Your task to perform on an android device: Show the shopping cart on ebay. Image 0: 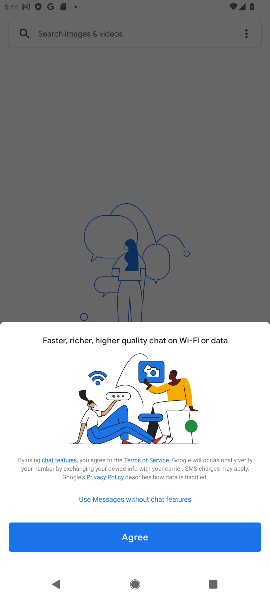
Step 0: press home button
Your task to perform on an android device: Show the shopping cart on ebay. Image 1: 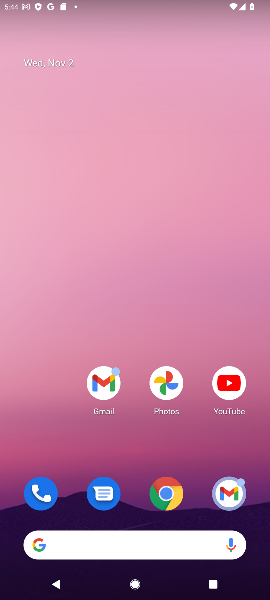
Step 1: drag from (91, 488) to (155, 68)
Your task to perform on an android device: Show the shopping cart on ebay. Image 2: 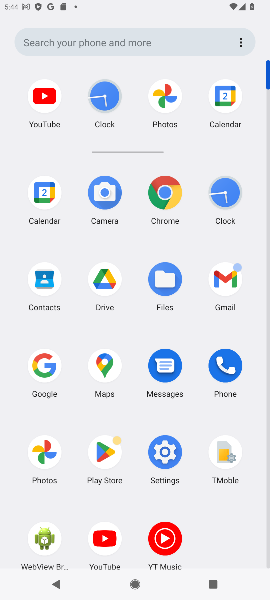
Step 2: click (42, 368)
Your task to perform on an android device: Show the shopping cart on ebay. Image 3: 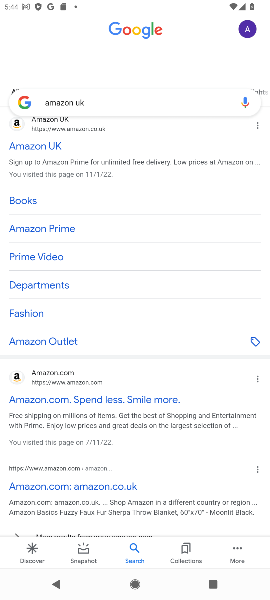
Step 3: click (119, 108)
Your task to perform on an android device: Show the shopping cart on ebay. Image 4: 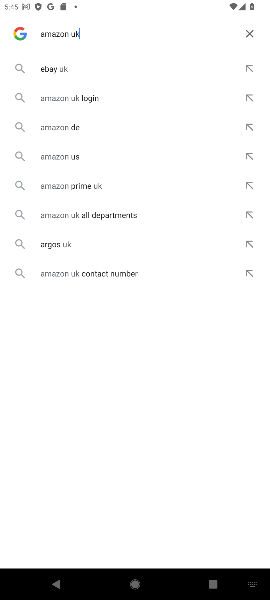
Step 4: click (245, 32)
Your task to perform on an android device: Show the shopping cart on ebay. Image 5: 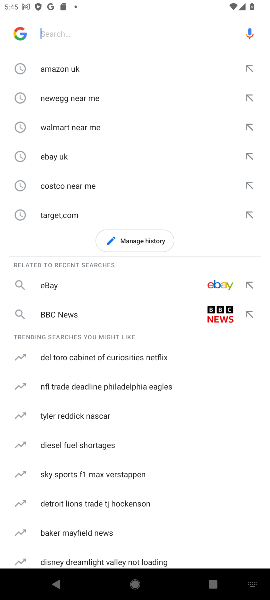
Step 5: click (42, 157)
Your task to perform on an android device: Show the shopping cart on ebay. Image 6: 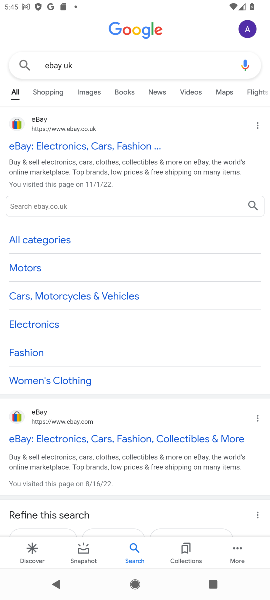
Step 6: click (25, 117)
Your task to perform on an android device: Show the shopping cart on ebay. Image 7: 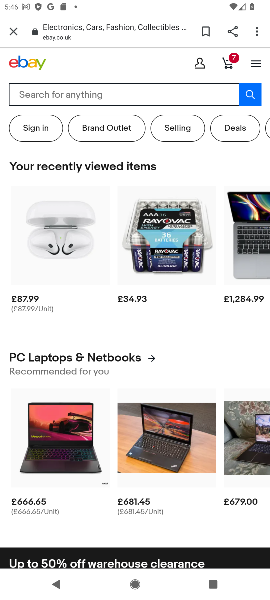
Step 7: click (232, 57)
Your task to perform on an android device: Show the shopping cart on ebay. Image 8: 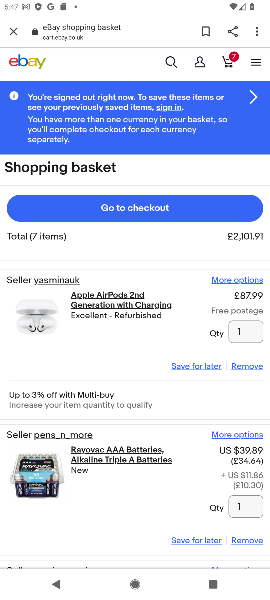
Step 8: task complete